Your task to perform on an android device: turn off sleep mode Image 0: 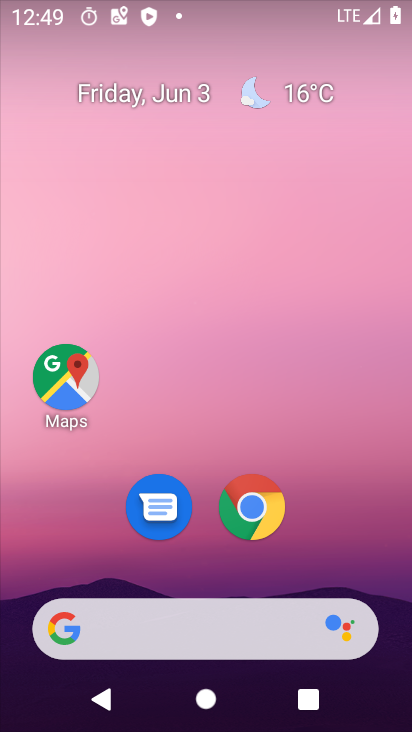
Step 0: drag from (399, 638) to (320, 89)
Your task to perform on an android device: turn off sleep mode Image 1: 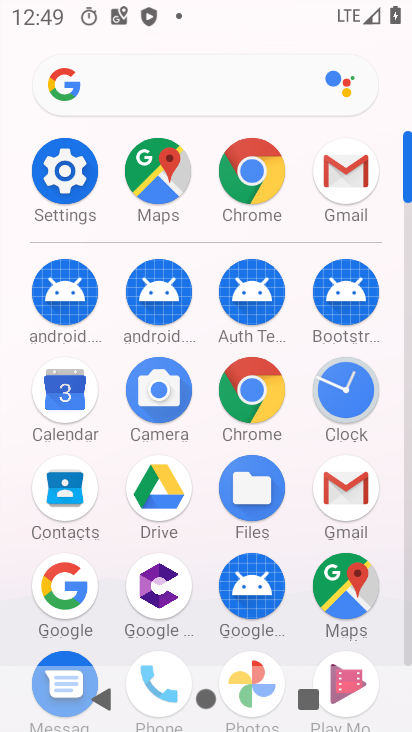
Step 1: click (66, 194)
Your task to perform on an android device: turn off sleep mode Image 2: 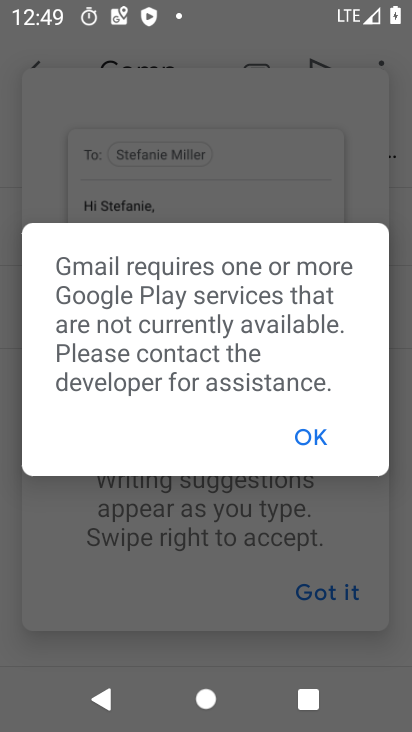
Step 2: press home button
Your task to perform on an android device: turn off sleep mode Image 3: 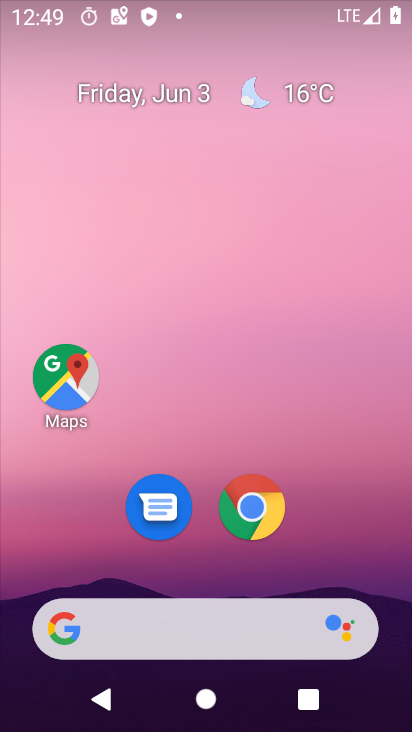
Step 3: drag from (395, 638) to (253, 28)
Your task to perform on an android device: turn off sleep mode Image 4: 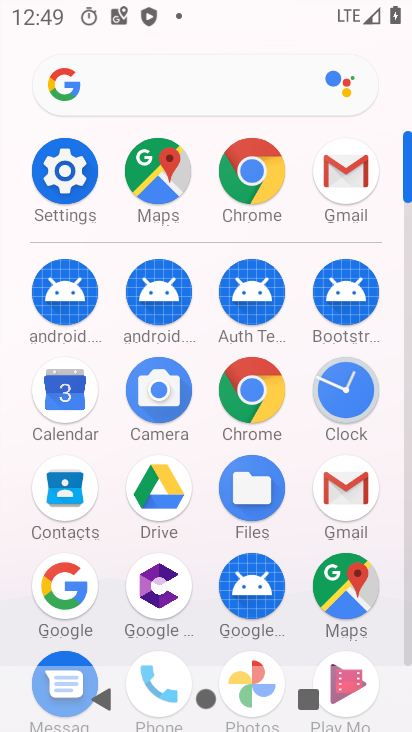
Step 4: click (60, 194)
Your task to perform on an android device: turn off sleep mode Image 5: 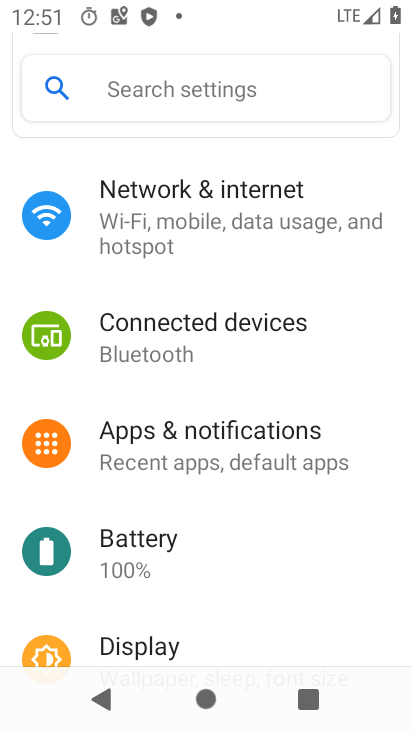
Step 5: task complete